Your task to perform on an android device: Open Android settings Image 0: 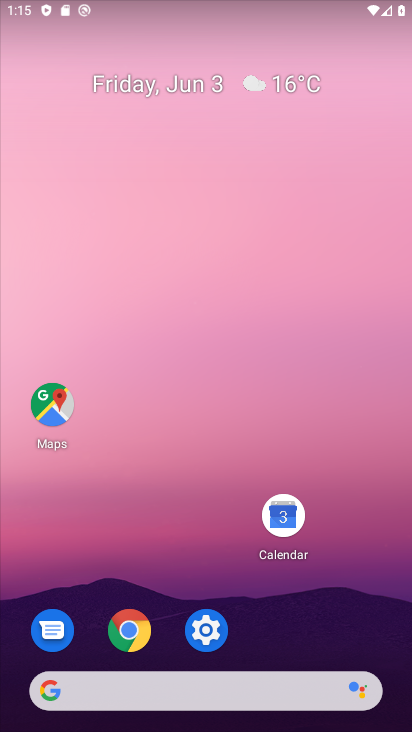
Step 0: press home button
Your task to perform on an android device: Open Android settings Image 1: 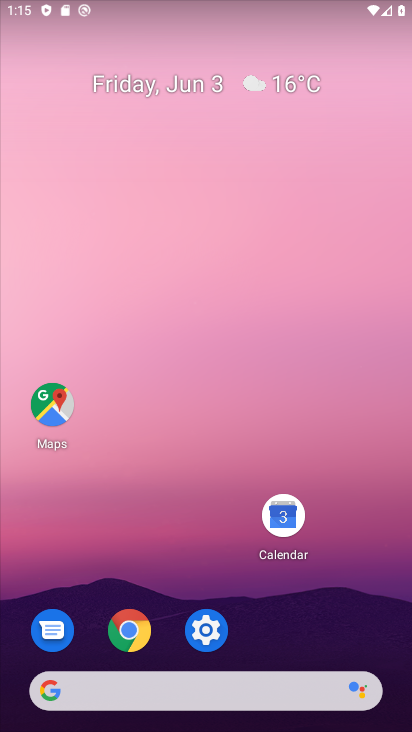
Step 1: drag from (199, 720) to (278, 250)
Your task to perform on an android device: Open Android settings Image 2: 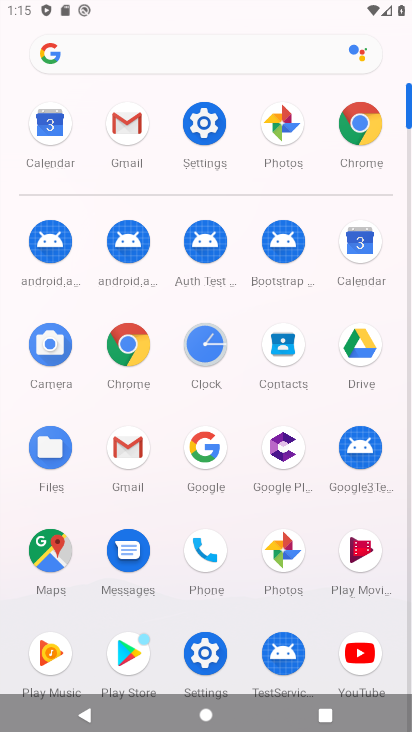
Step 2: click (189, 135)
Your task to perform on an android device: Open Android settings Image 3: 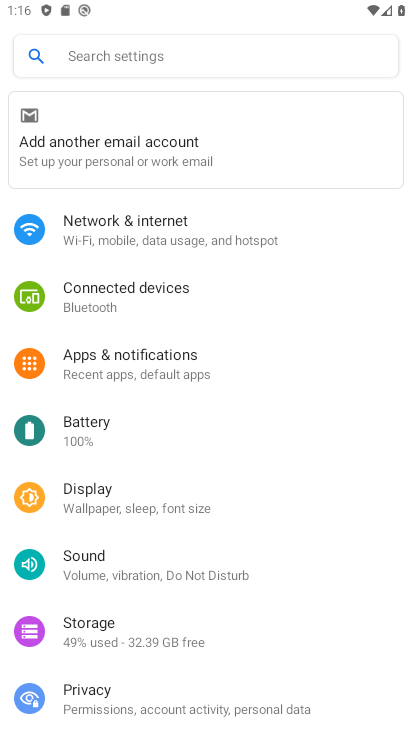
Step 3: click (117, 41)
Your task to perform on an android device: Open Android settings Image 4: 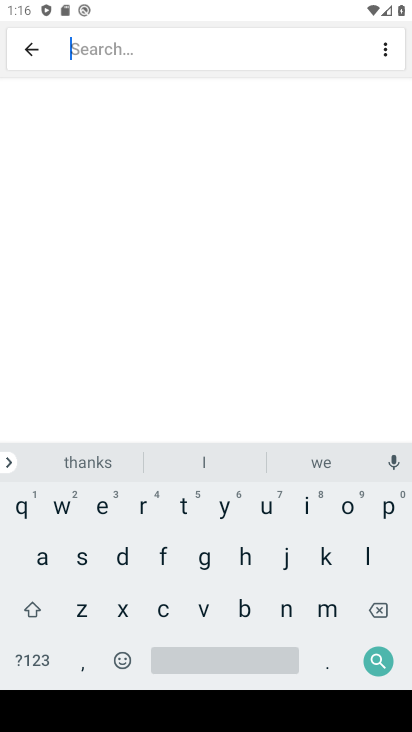
Step 4: click (33, 561)
Your task to perform on an android device: Open Android settings Image 5: 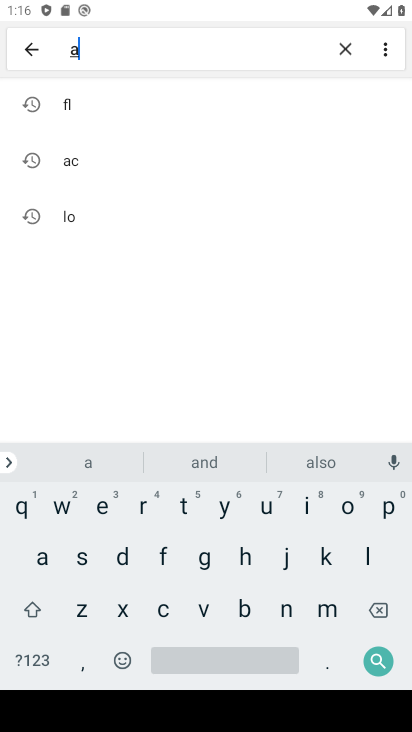
Step 5: click (285, 609)
Your task to perform on an android device: Open Android settings Image 6: 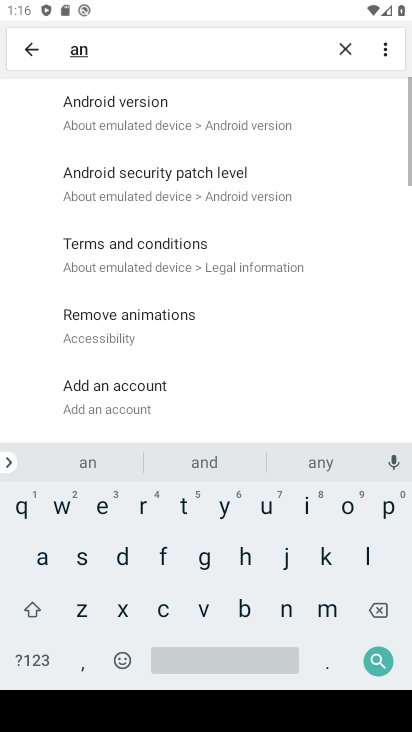
Step 6: click (153, 124)
Your task to perform on an android device: Open Android settings Image 7: 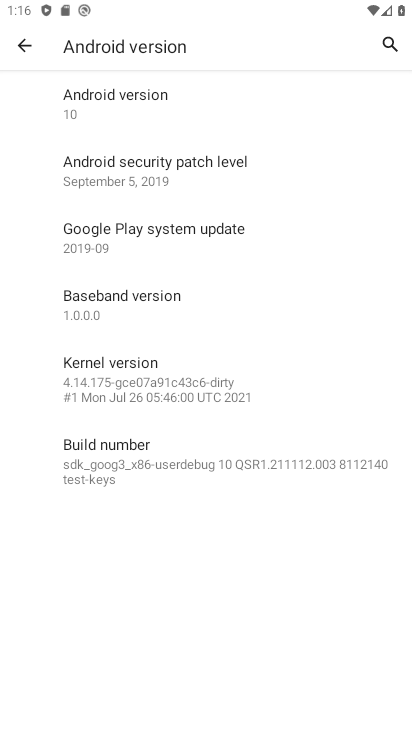
Step 7: click (120, 104)
Your task to perform on an android device: Open Android settings Image 8: 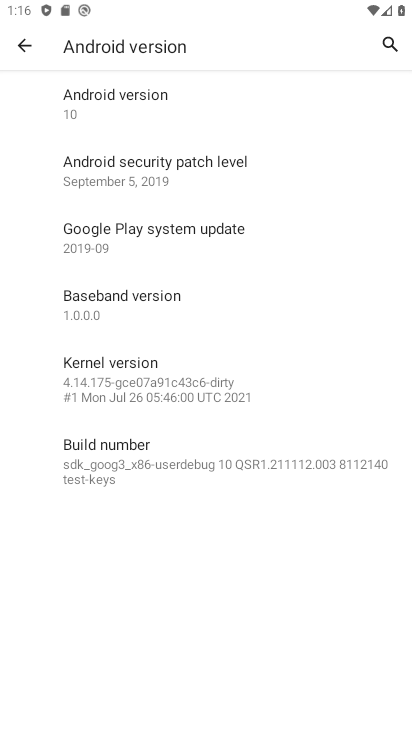
Step 8: task complete